Your task to perform on an android device: turn on airplane mode Image 0: 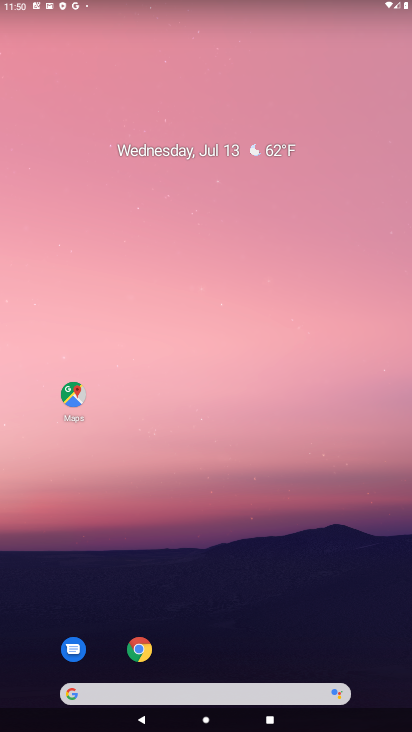
Step 0: drag from (337, 562) to (215, 24)
Your task to perform on an android device: turn on airplane mode Image 1: 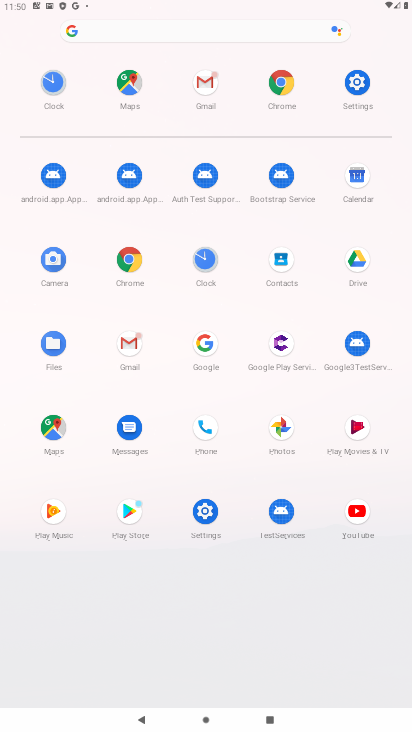
Step 1: drag from (232, 2) to (270, 631)
Your task to perform on an android device: turn on airplane mode Image 2: 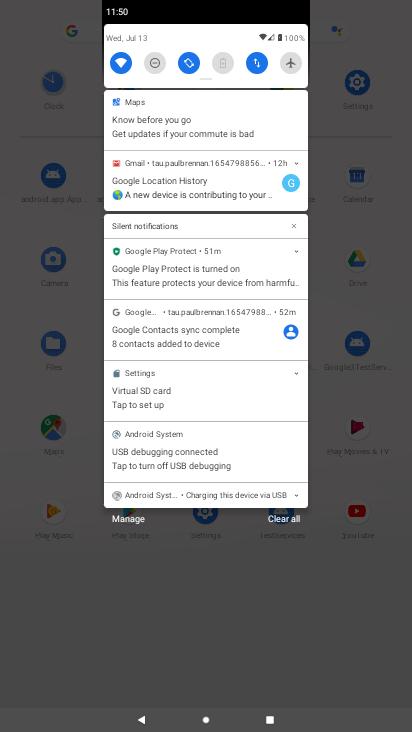
Step 2: click (286, 62)
Your task to perform on an android device: turn on airplane mode Image 3: 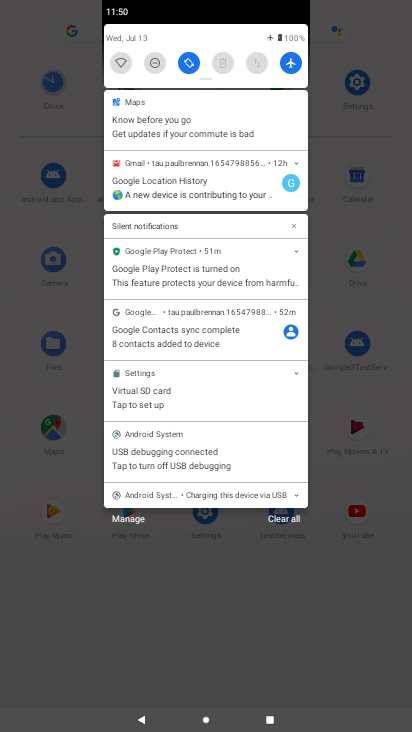
Step 3: task complete